Your task to perform on an android device: toggle notifications settings in the gmail app Image 0: 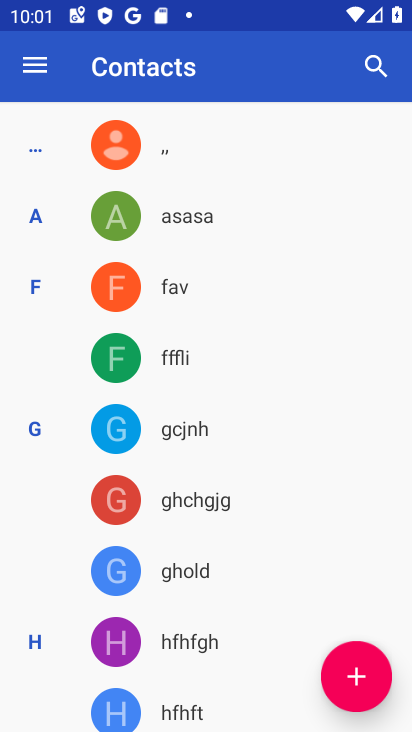
Step 0: press home button
Your task to perform on an android device: toggle notifications settings in the gmail app Image 1: 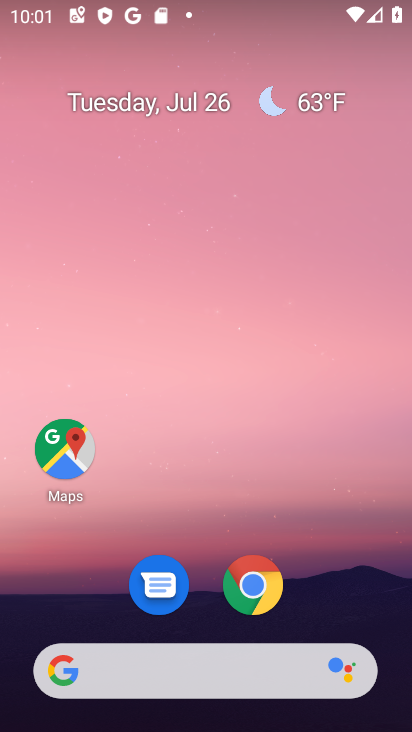
Step 1: drag from (326, 526) to (355, 52)
Your task to perform on an android device: toggle notifications settings in the gmail app Image 2: 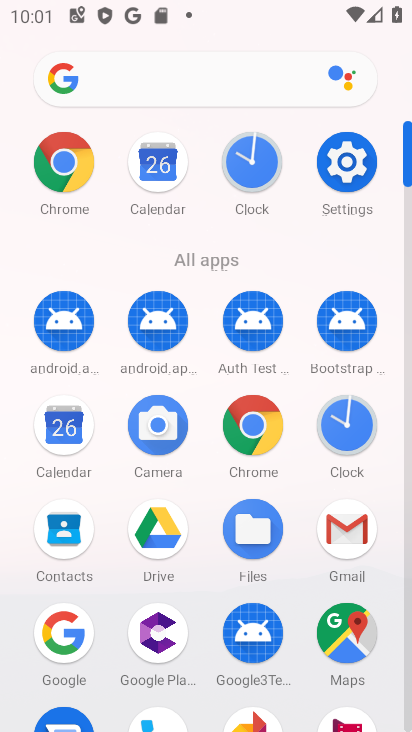
Step 2: click (342, 517)
Your task to perform on an android device: toggle notifications settings in the gmail app Image 3: 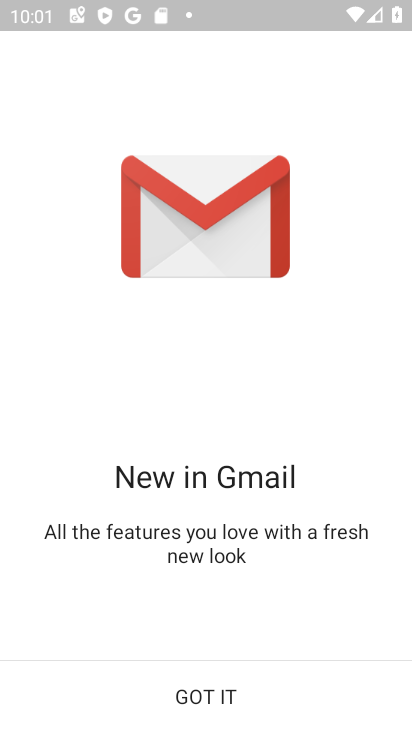
Step 3: click (250, 684)
Your task to perform on an android device: toggle notifications settings in the gmail app Image 4: 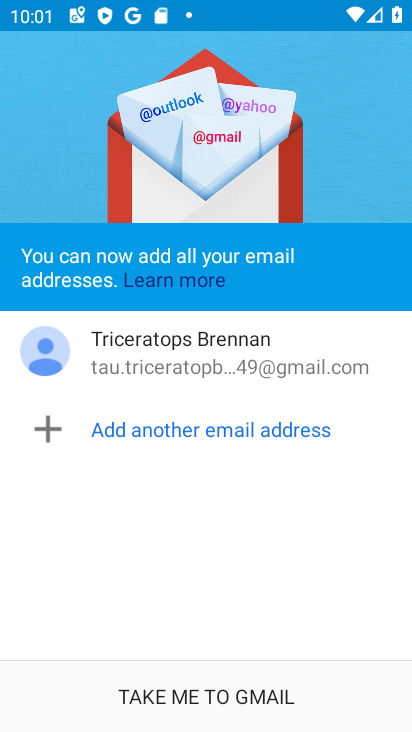
Step 4: click (258, 698)
Your task to perform on an android device: toggle notifications settings in the gmail app Image 5: 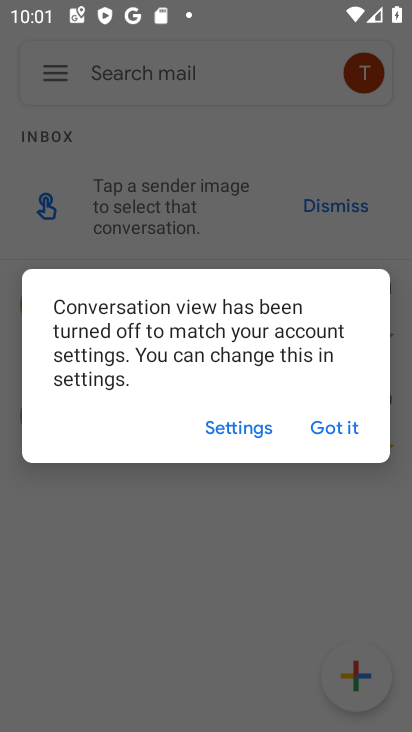
Step 5: click (320, 420)
Your task to perform on an android device: toggle notifications settings in the gmail app Image 6: 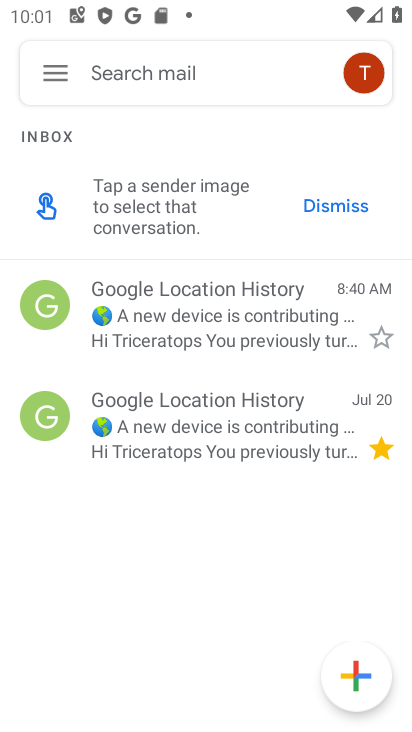
Step 6: click (54, 68)
Your task to perform on an android device: toggle notifications settings in the gmail app Image 7: 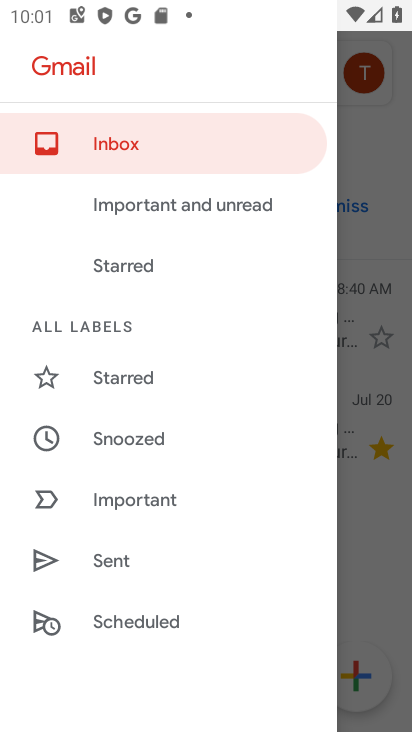
Step 7: drag from (140, 576) to (210, 143)
Your task to perform on an android device: toggle notifications settings in the gmail app Image 8: 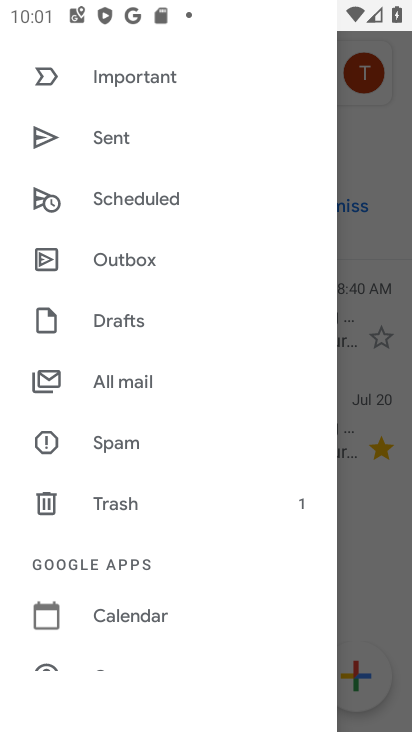
Step 8: drag from (156, 539) to (208, 242)
Your task to perform on an android device: toggle notifications settings in the gmail app Image 9: 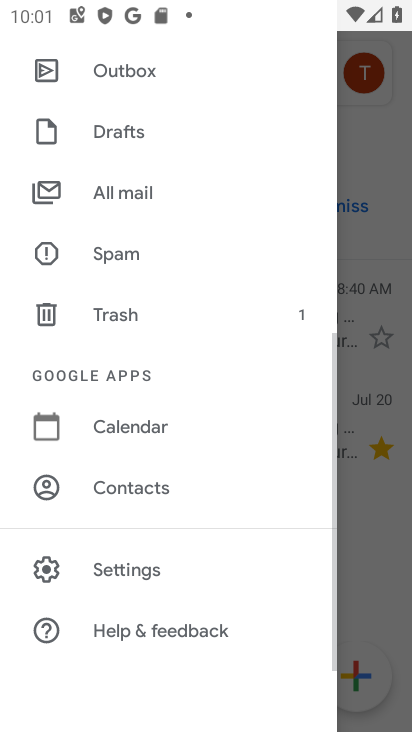
Step 9: click (130, 568)
Your task to perform on an android device: toggle notifications settings in the gmail app Image 10: 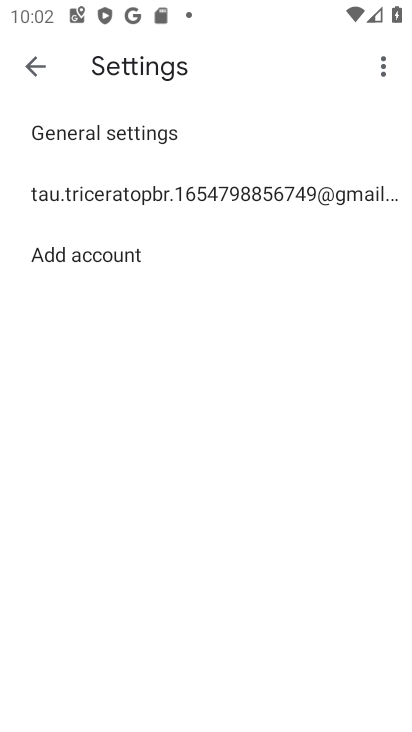
Step 10: click (224, 191)
Your task to perform on an android device: toggle notifications settings in the gmail app Image 11: 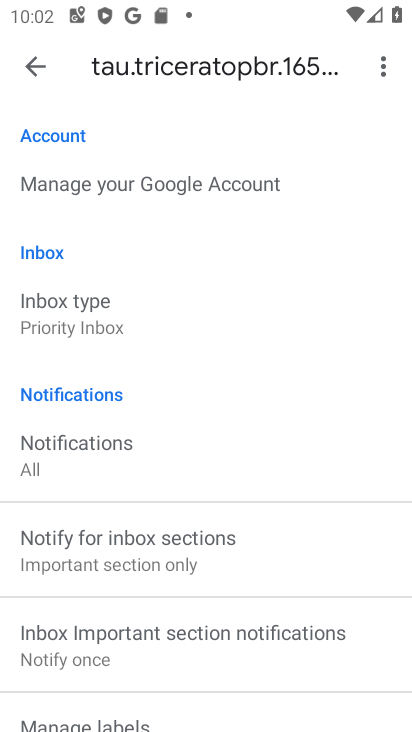
Step 11: drag from (262, 549) to (291, 201)
Your task to perform on an android device: toggle notifications settings in the gmail app Image 12: 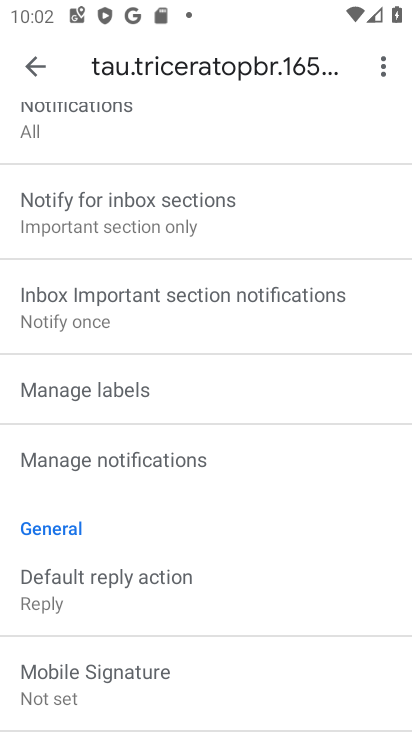
Step 12: click (202, 454)
Your task to perform on an android device: toggle notifications settings in the gmail app Image 13: 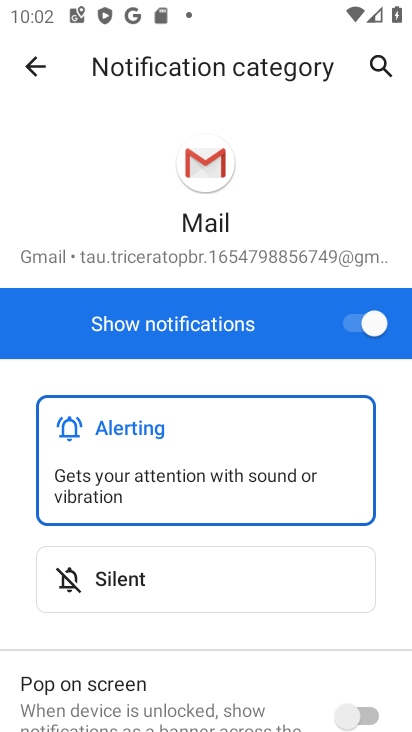
Step 13: click (354, 315)
Your task to perform on an android device: toggle notifications settings in the gmail app Image 14: 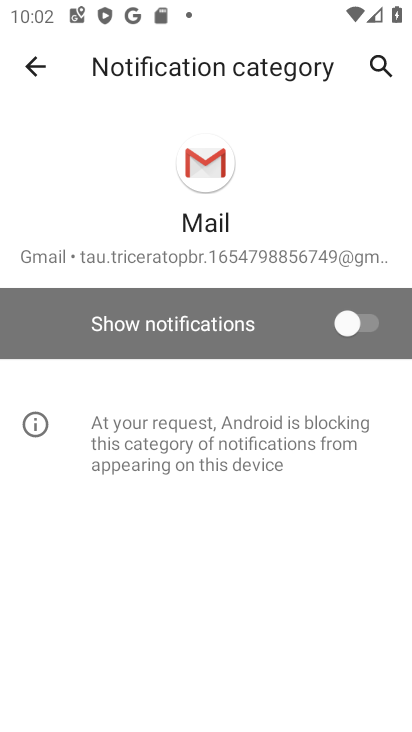
Step 14: task complete